Your task to perform on an android device: Clear all items from cart on amazon.com. Image 0: 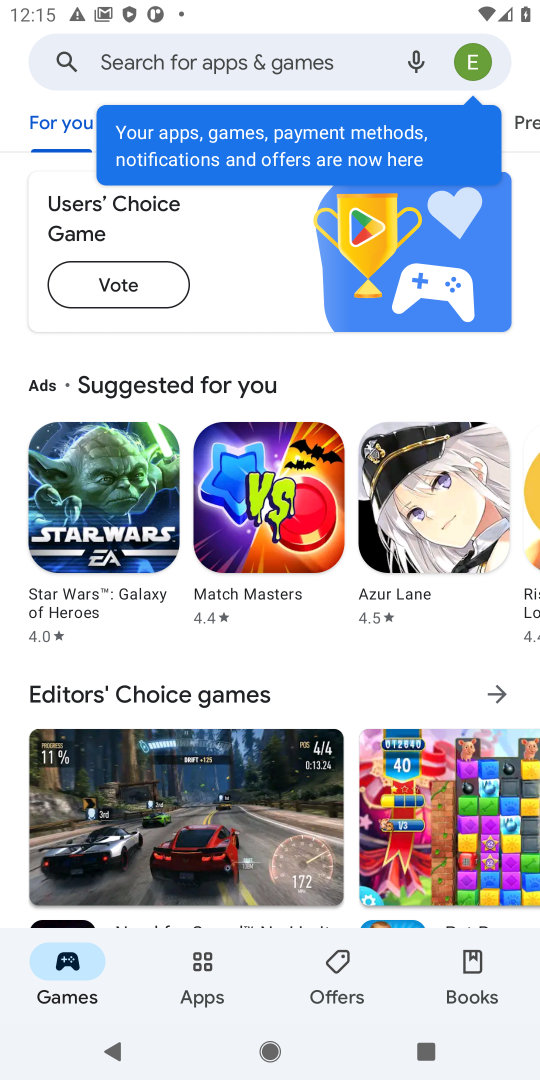
Step 0: press home button
Your task to perform on an android device: Clear all items from cart on amazon.com. Image 1: 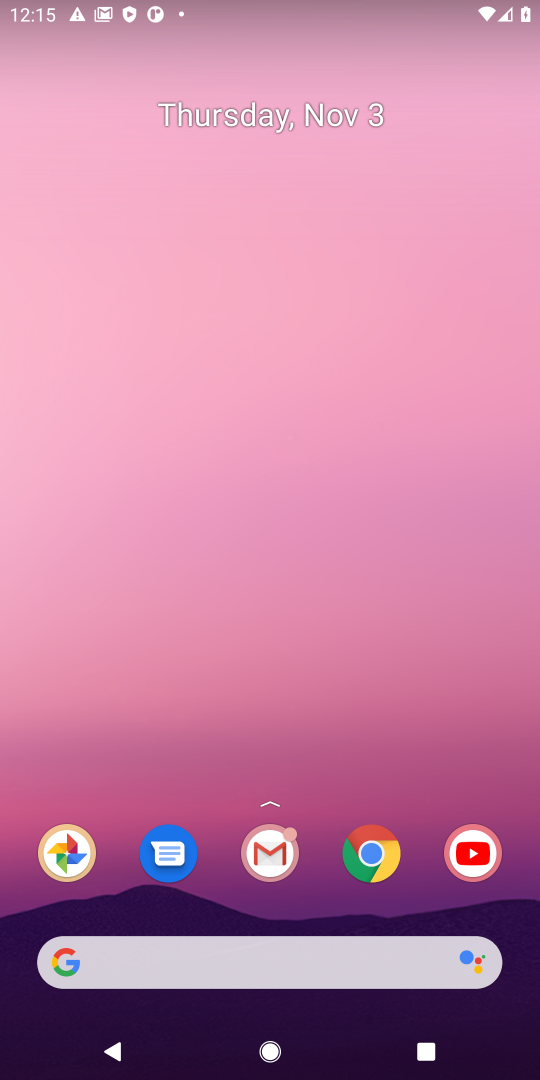
Step 1: click (368, 853)
Your task to perform on an android device: Clear all items from cart on amazon.com. Image 2: 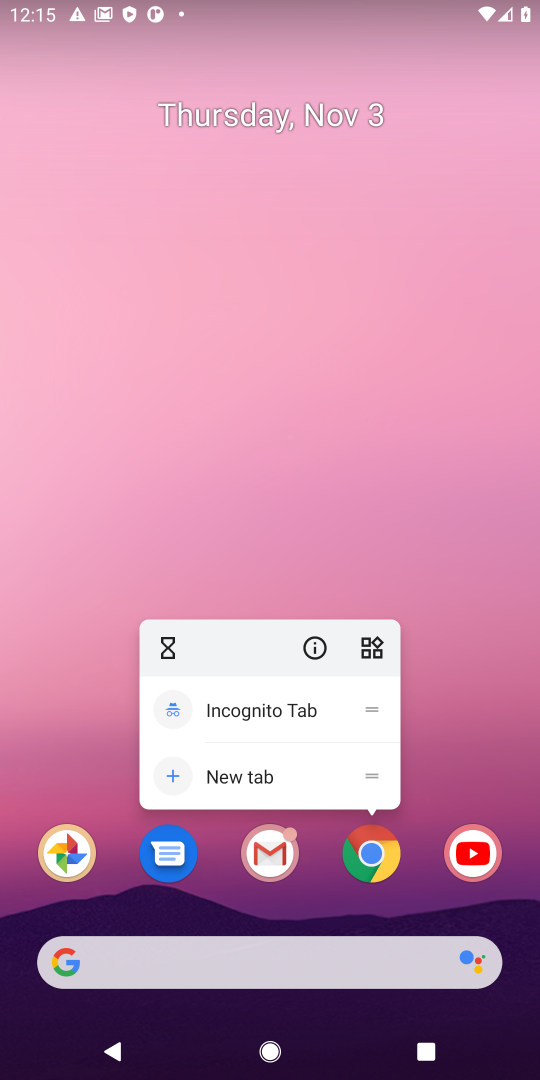
Step 2: click (368, 853)
Your task to perform on an android device: Clear all items from cart on amazon.com. Image 3: 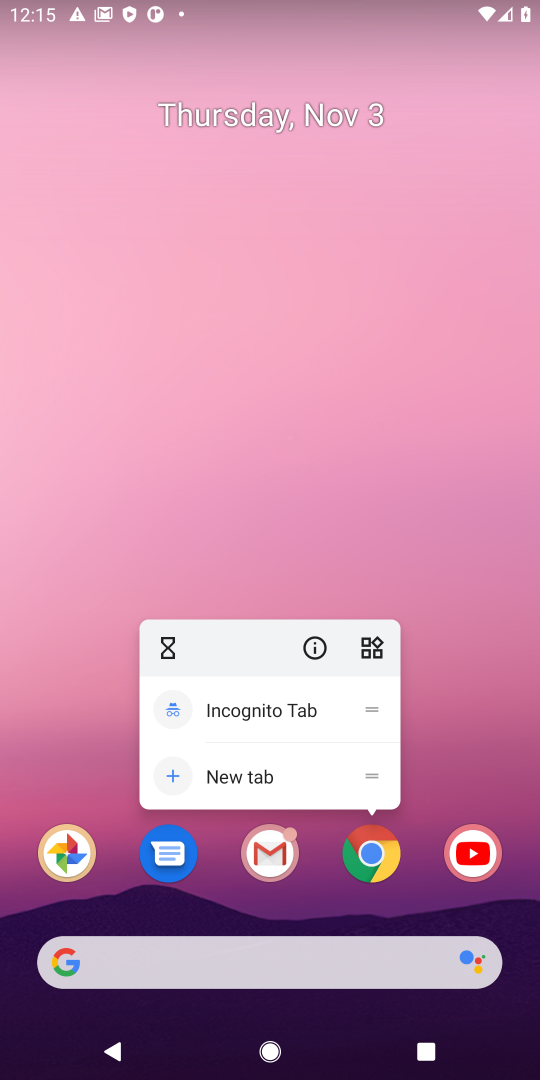
Step 3: click (366, 856)
Your task to perform on an android device: Clear all items from cart on amazon.com. Image 4: 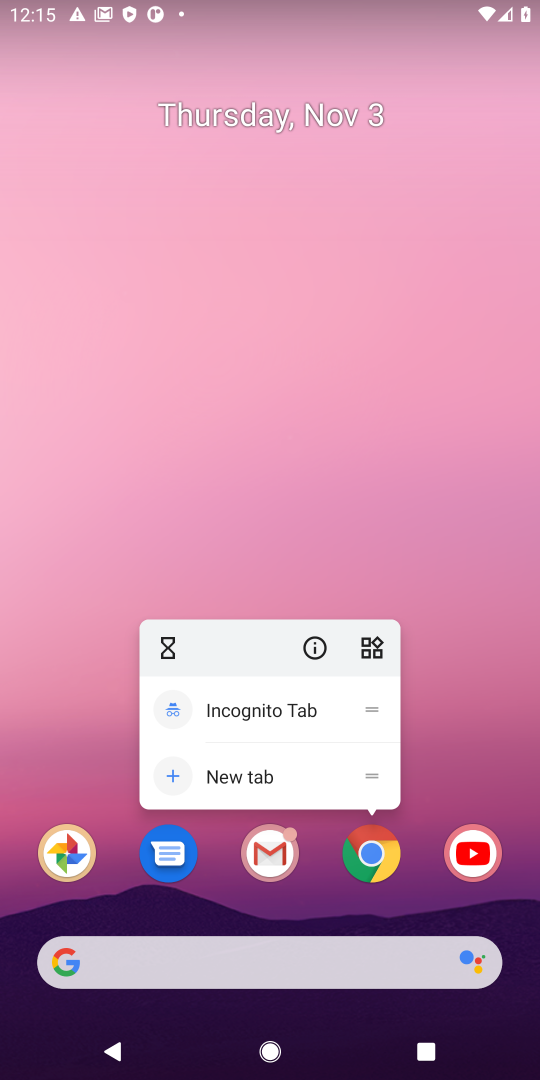
Step 4: click (366, 856)
Your task to perform on an android device: Clear all items from cart on amazon.com. Image 5: 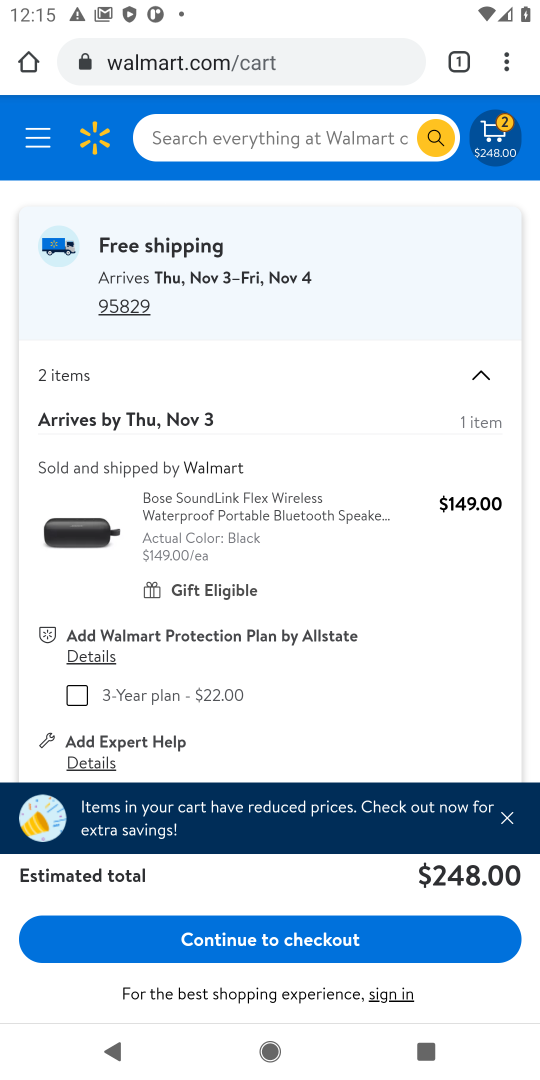
Step 5: click (299, 52)
Your task to perform on an android device: Clear all items from cart on amazon.com. Image 6: 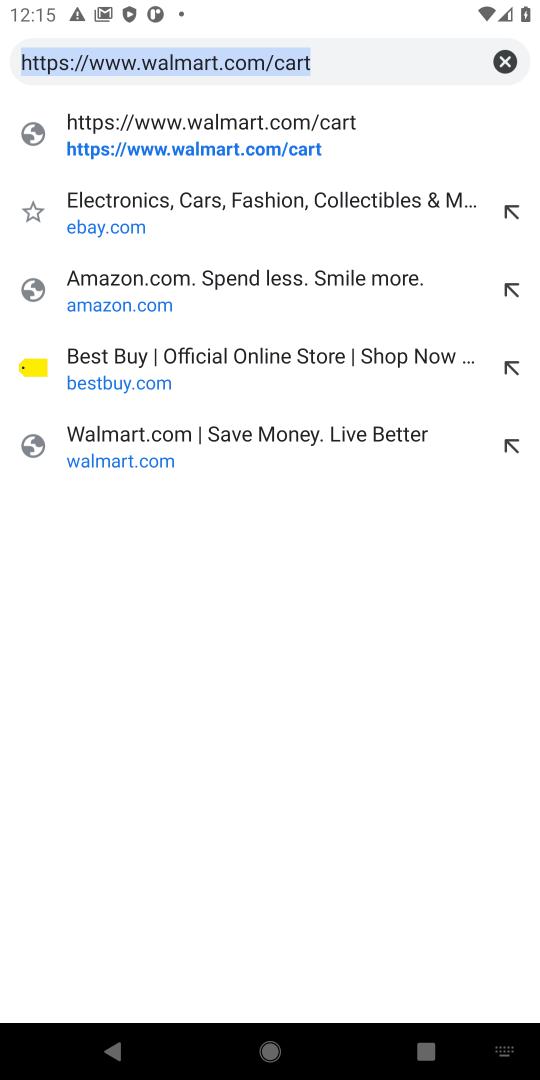
Step 6: click (500, 58)
Your task to perform on an android device: Clear all items from cart on amazon.com. Image 7: 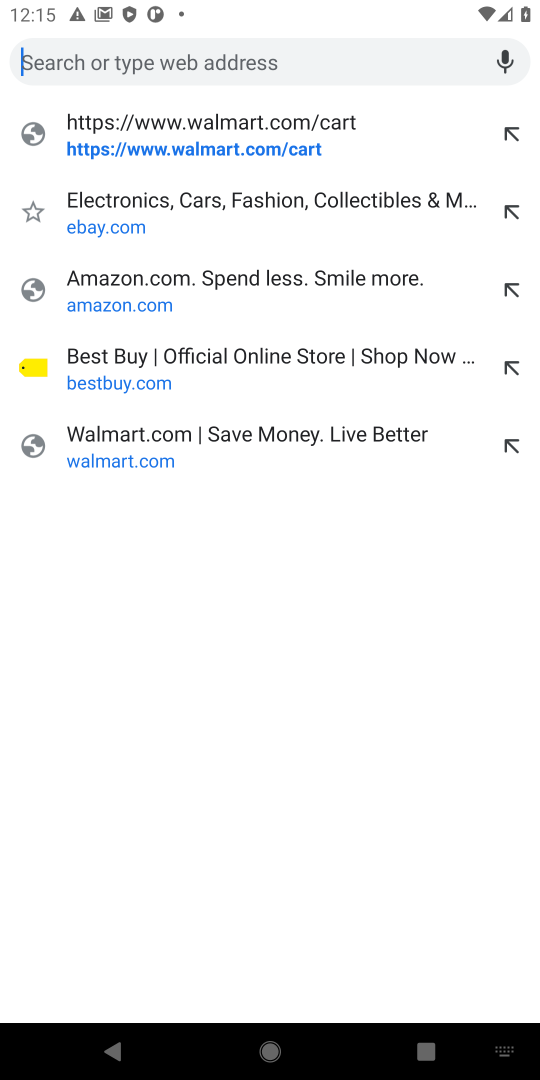
Step 7: click (113, 298)
Your task to perform on an android device: Clear all items from cart on amazon.com. Image 8: 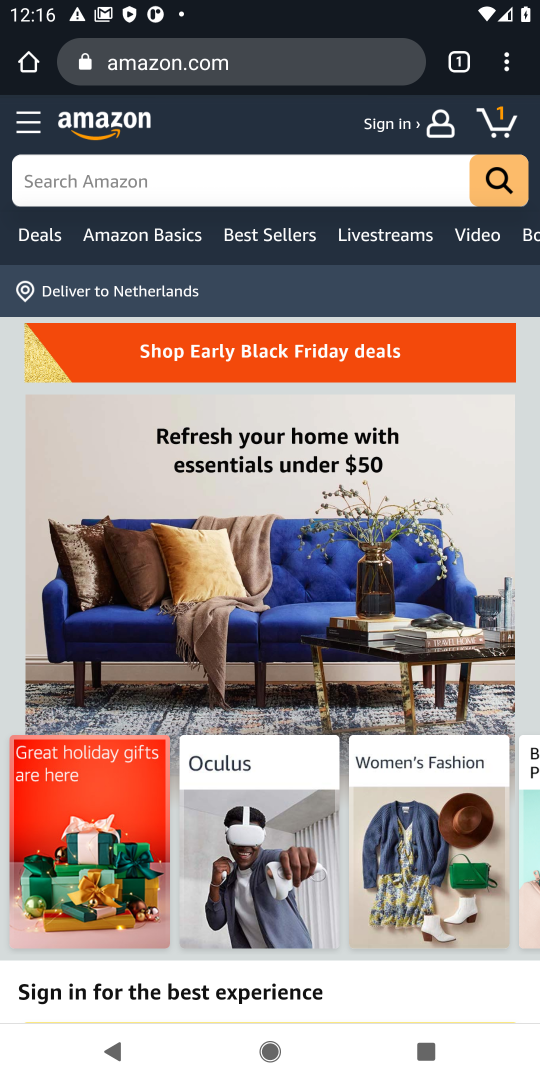
Step 8: click (496, 122)
Your task to perform on an android device: Clear all items from cart on amazon.com. Image 9: 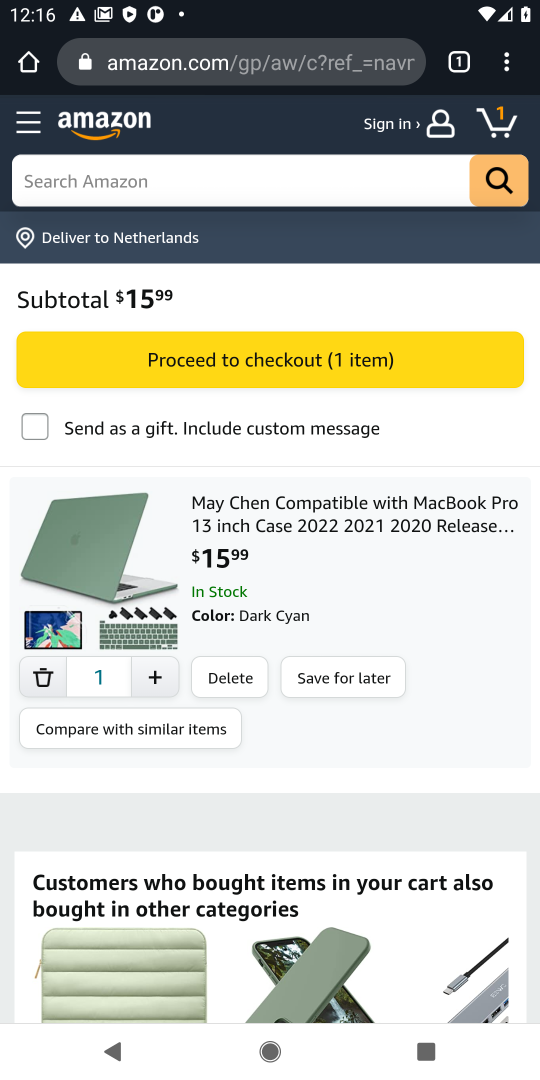
Step 9: click (244, 672)
Your task to perform on an android device: Clear all items from cart on amazon.com. Image 10: 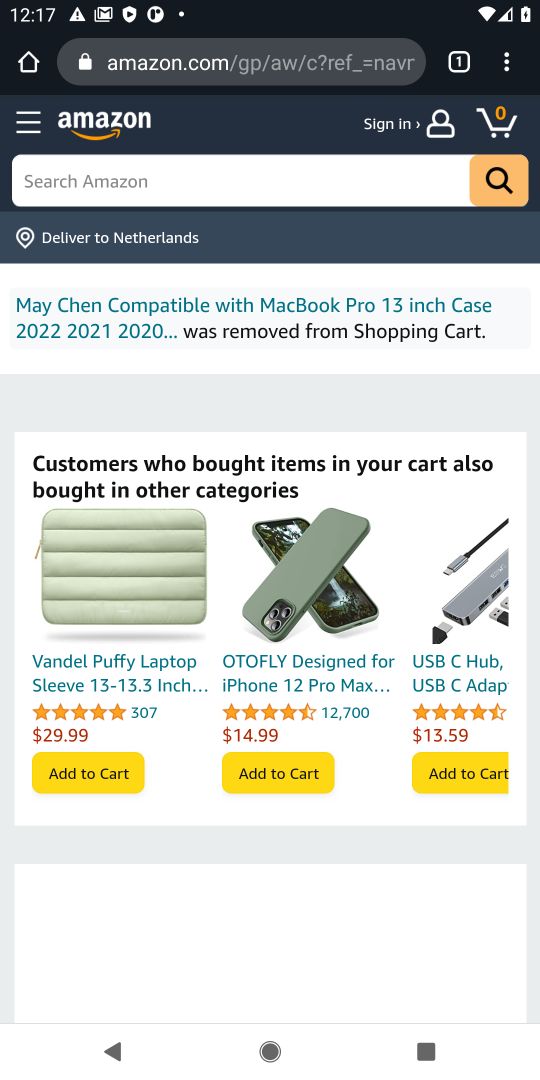
Step 10: task complete